Your task to perform on an android device: Empty the shopping cart on target.com. Add "razer deathadder" to the cart on target.com, then select checkout. Image 0: 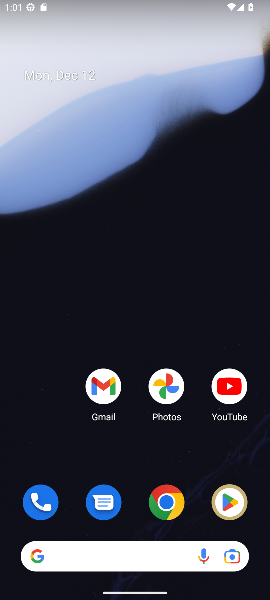
Step 0: click (171, 509)
Your task to perform on an android device: Empty the shopping cart on target.com. Add "razer deathadder" to the cart on target.com, then select checkout. Image 1: 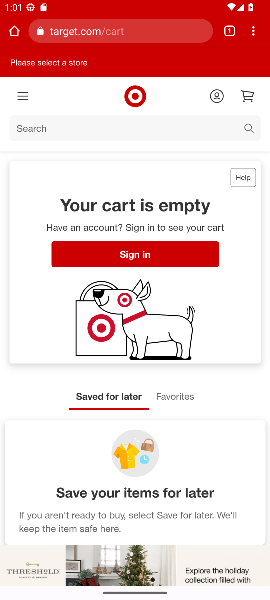
Step 1: click (80, 121)
Your task to perform on an android device: Empty the shopping cart on target.com. Add "razer deathadder" to the cart on target.com, then select checkout. Image 2: 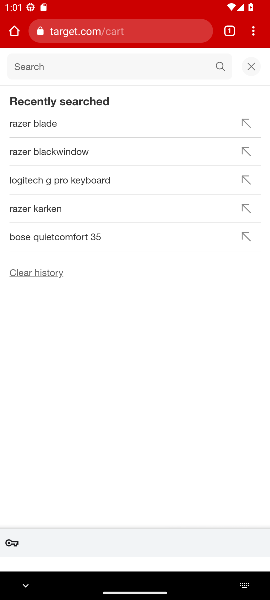
Step 2: type "razer deathhadder"
Your task to perform on an android device: Empty the shopping cart on target.com. Add "razer deathadder" to the cart on target.com, then select checkout. Image 3: 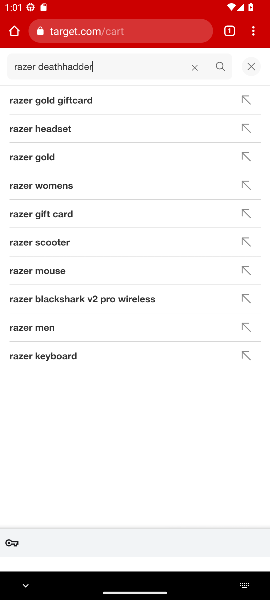
Step 3: click (214, 66)
Your task to perform on an android device: Empty the shopping cart on target.com. Add "razer deathadder" to the cart on target.com, then select checkout. Image 4: 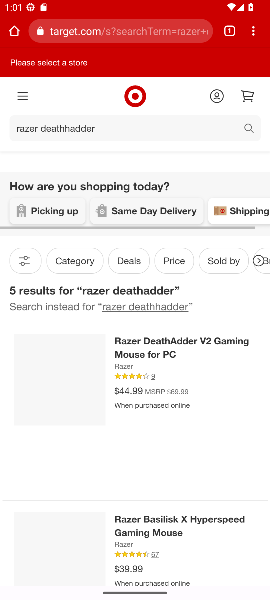
Step 4: task complete